Your task to perform on an android device: Check the news Image 0: 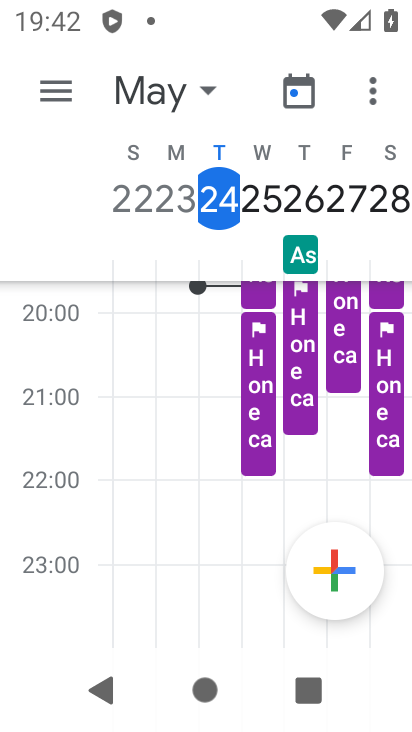
Step 0: press home button
Your task to perform on an android device: Check the news Image 1: 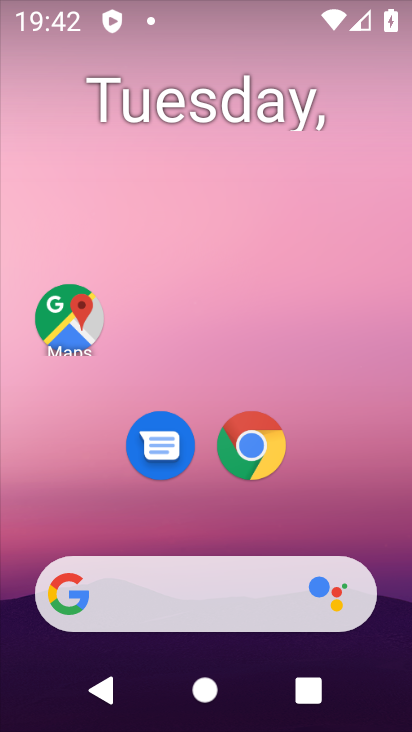
Step 1: drag from (227, 523) to (227, 67)
Your task to perform on an android device: Check the news Image 2: 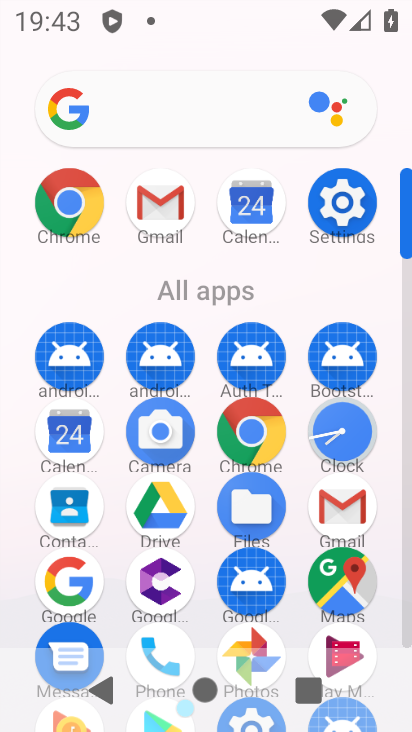
Step 2: click (77, 585)
Your task to perform on an android device: Check the news Image 3: 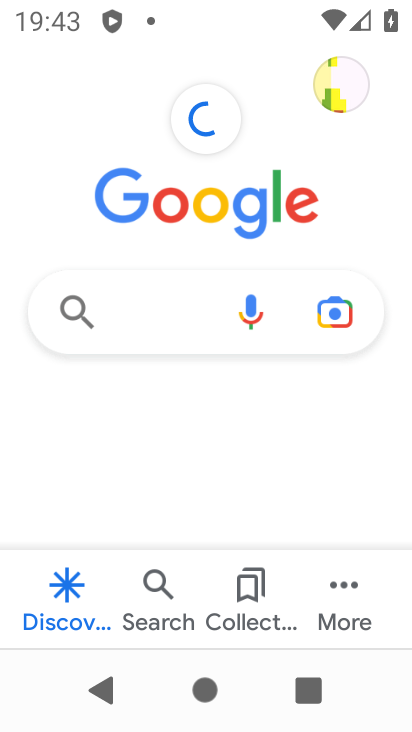
Step 3: click (134, 316)
Your task to perform on an android device: Check the news Image 4: 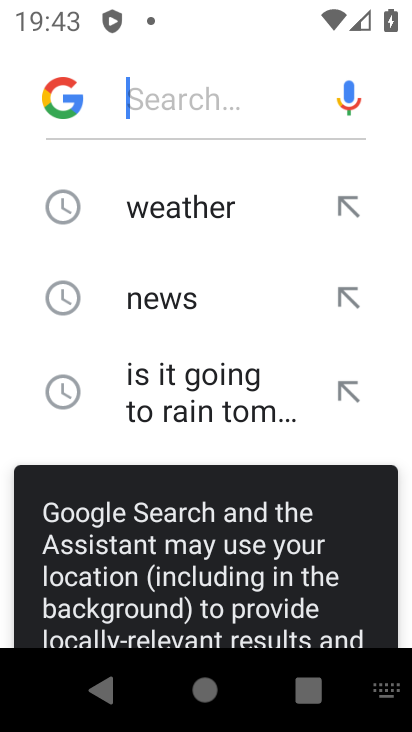
Step 4: click (146, 311)
Your task to perform on an android device: Check the news Image 5: 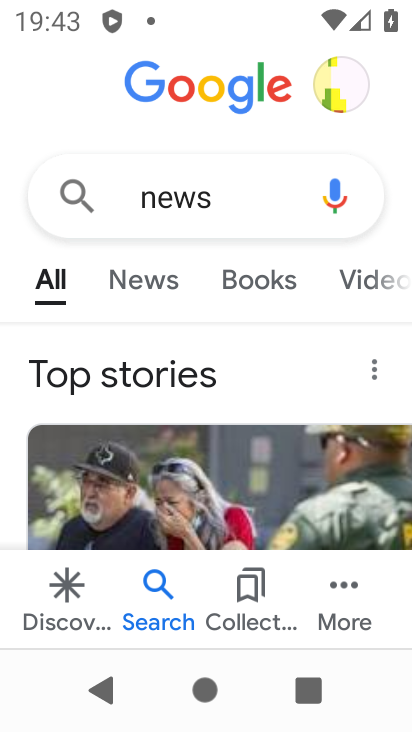
Step 5: task complete